Your task to perform on an android device: all mails in gmail Image 0: 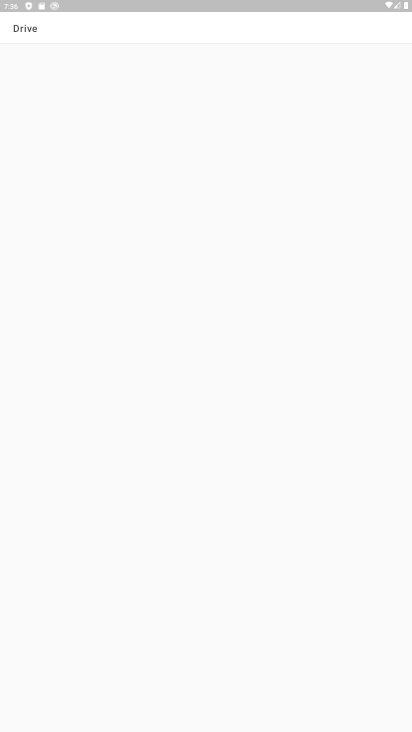
Step 0: press home button
Your task to perform on an android device: all mails in gmail Image 1: 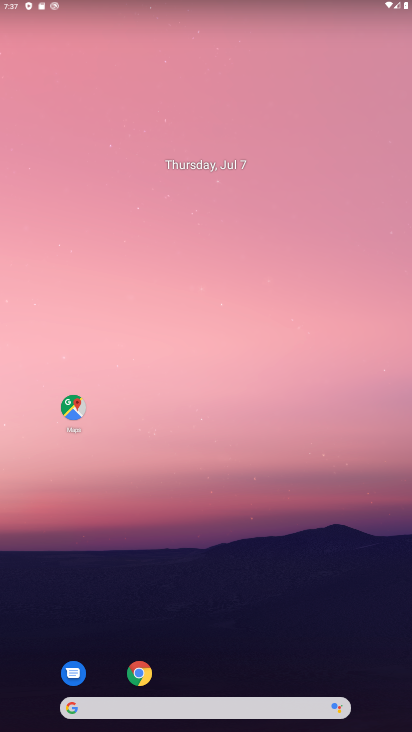
Step 1: drag from (210, 586) to (188, 33)
Your task to perform on an android device: all mails in gmail Image 2: 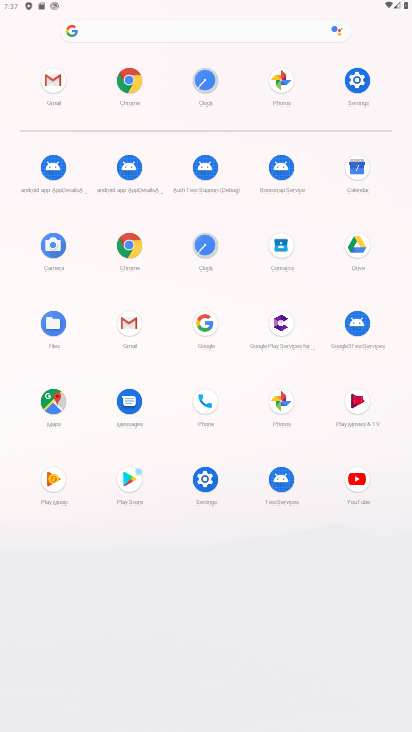
Step 2: click (127, 323)
Your task to perform on an android device: all mails in gmail Image 3: 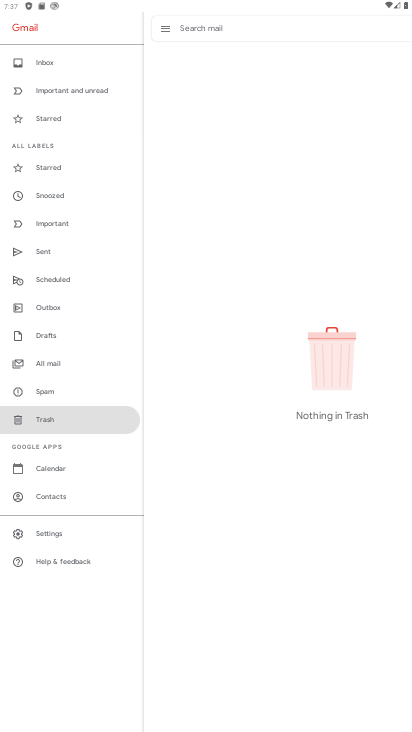
Step 3: click (49, 360)
Your task to perform on an android device: all mails in gmail Image 4: 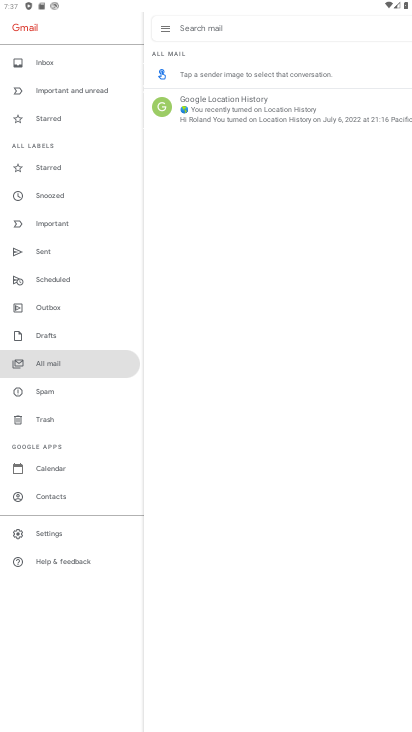
Step 4: task complete